Your task to perform on an android device: Add "macbook pro 13 inch" to the cart on target.com, then select checkout. Image 0: 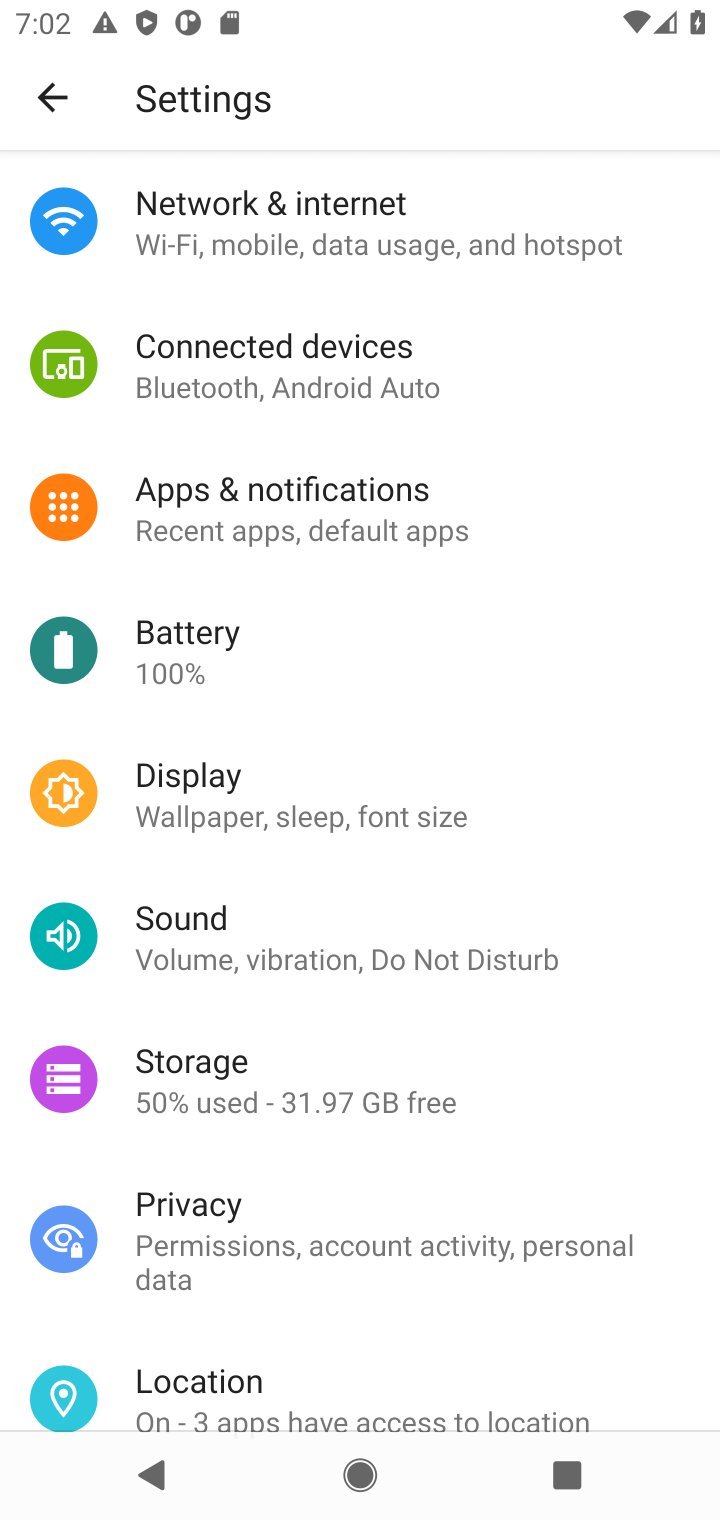
Step 0: press home button
Your task to perform on an android device: Add "macbook pro 13 inch" to the cart on target.com, then select checkout. Image 1: 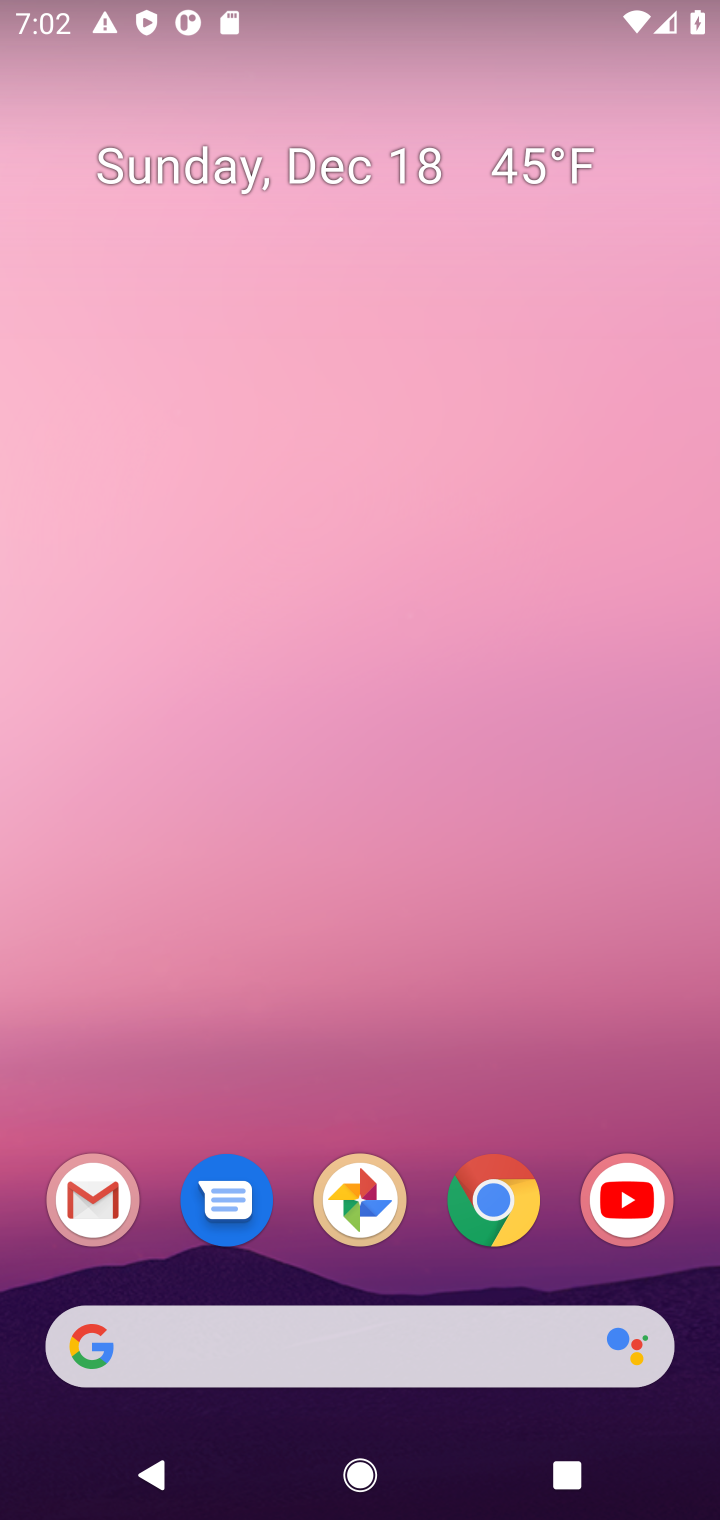
Step 1: click (496, 1223)
Your task to perform on an android device: Add "macbook pro 13 inch" to the cart on target.com, then select checkout. Image 2: 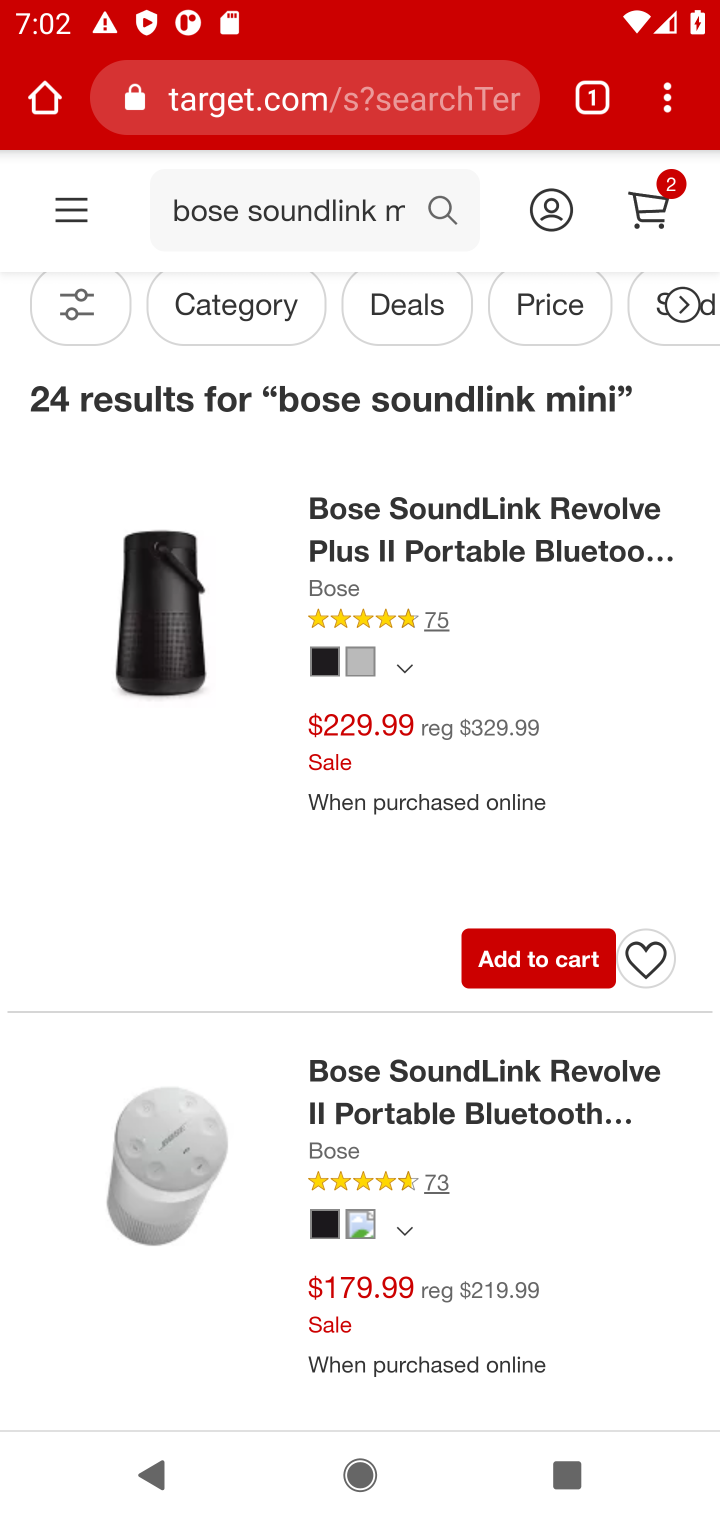
Step 2: click (437, 216)
Your task to perform on an android device: Add "macbook pro 13 inch" to the cart on target.com, then select checkout. Image 3: 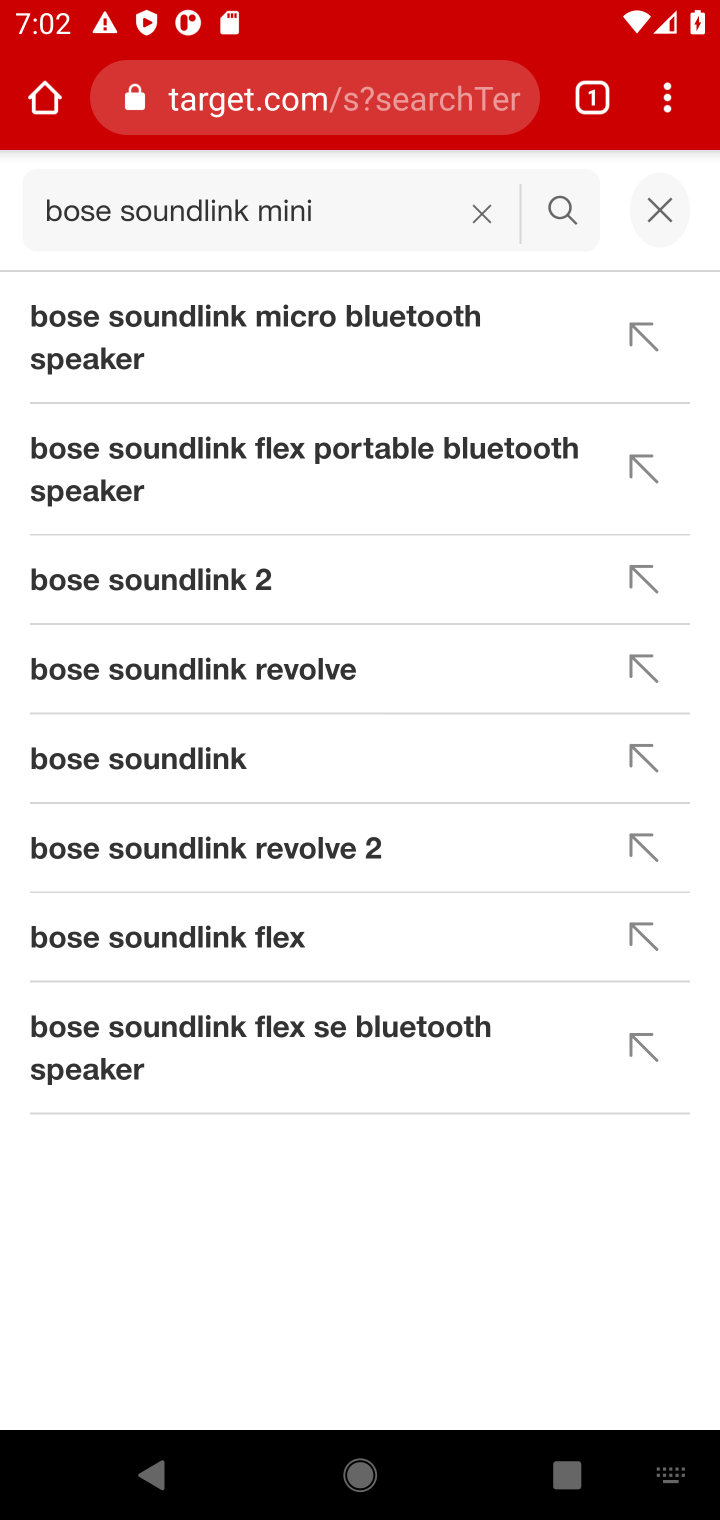
Step 3: click (491, 216)
Your task to perform on an android device: Add "macbook pro 13 inch" to the cart on target.com, then select checkout. Image 4: 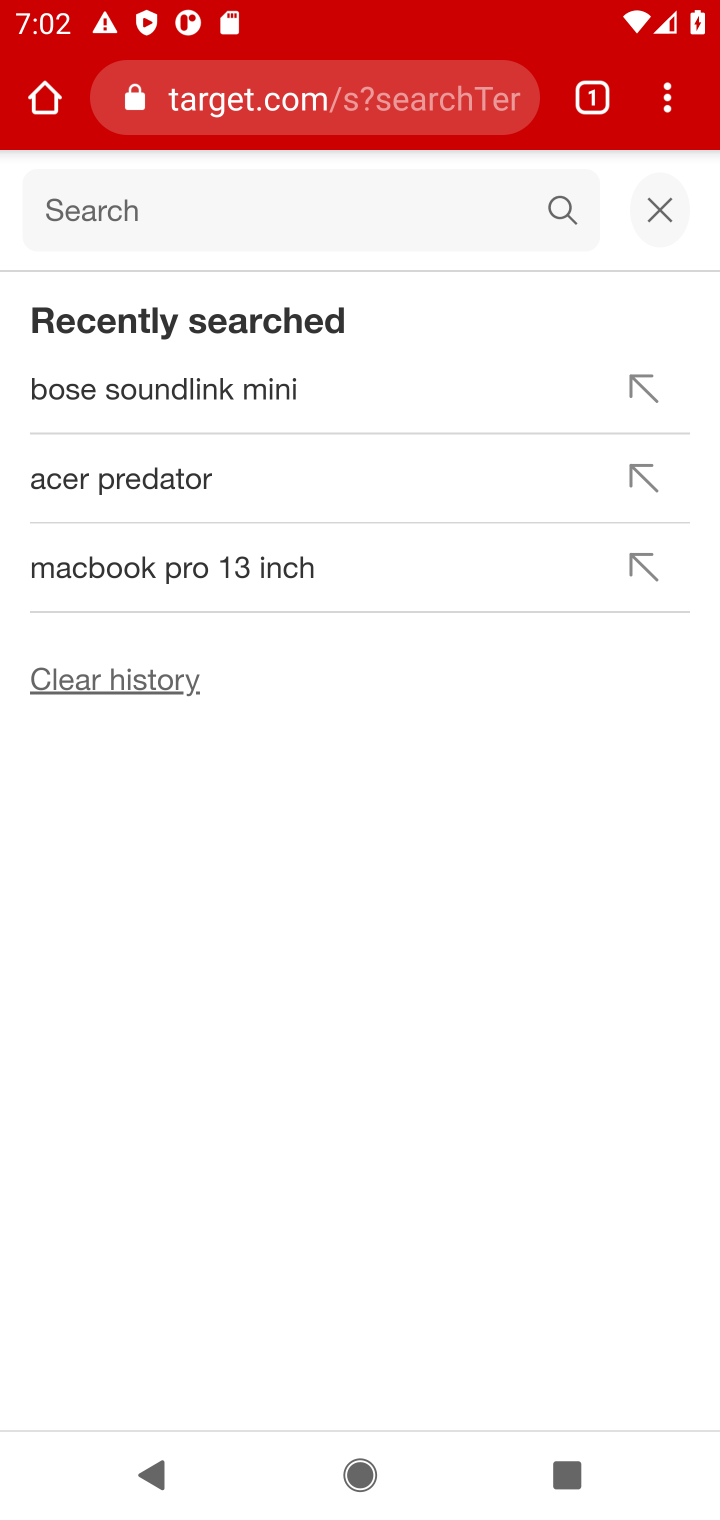
Step 4: click (175, 200)
Your task to perform on an android device: Add "macbook pro 13 inch" to the cart on target.com, then select checkout. Image 5: 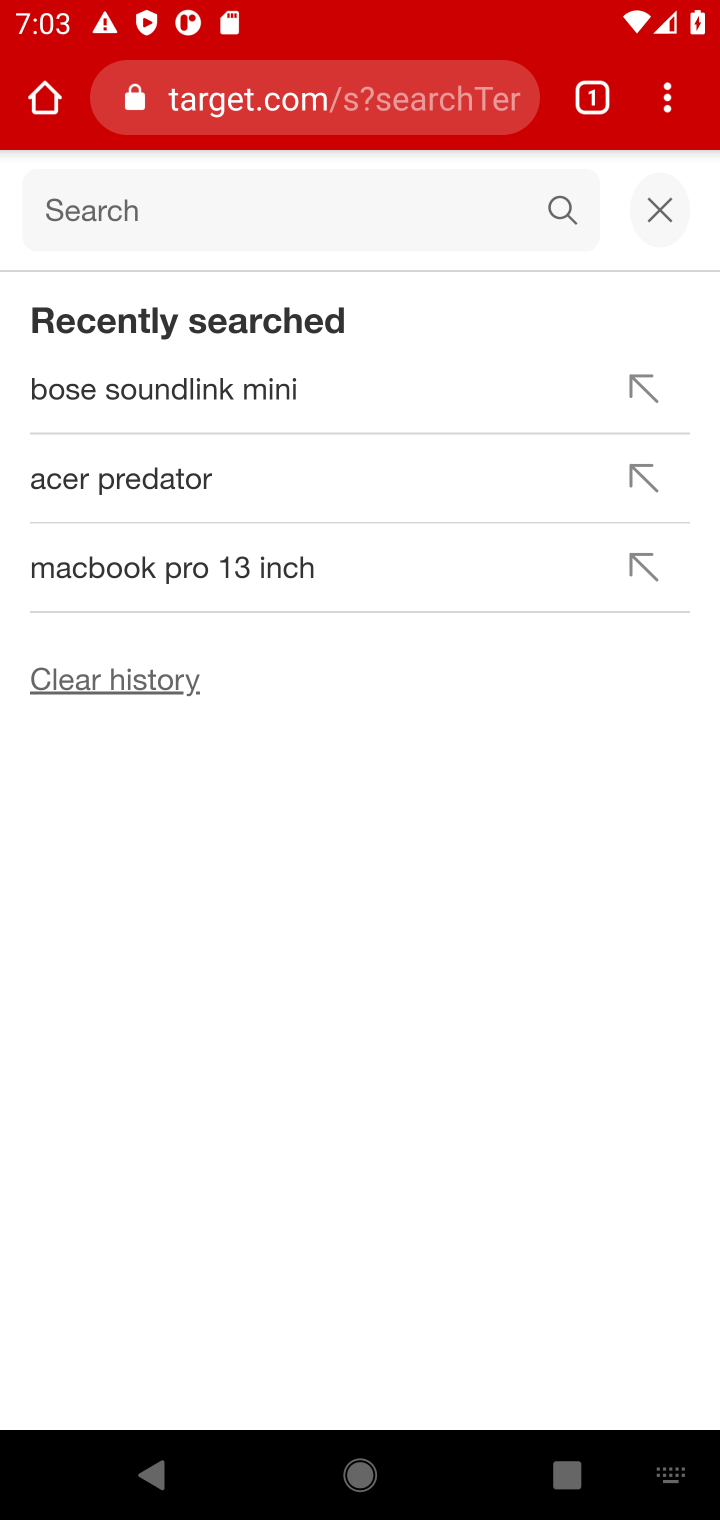
Step 5: click (174, 211)
Your task to perform on an android device: Add "macbook pro 13 inch" to the cart on target.com, then select checkout. Image 6: 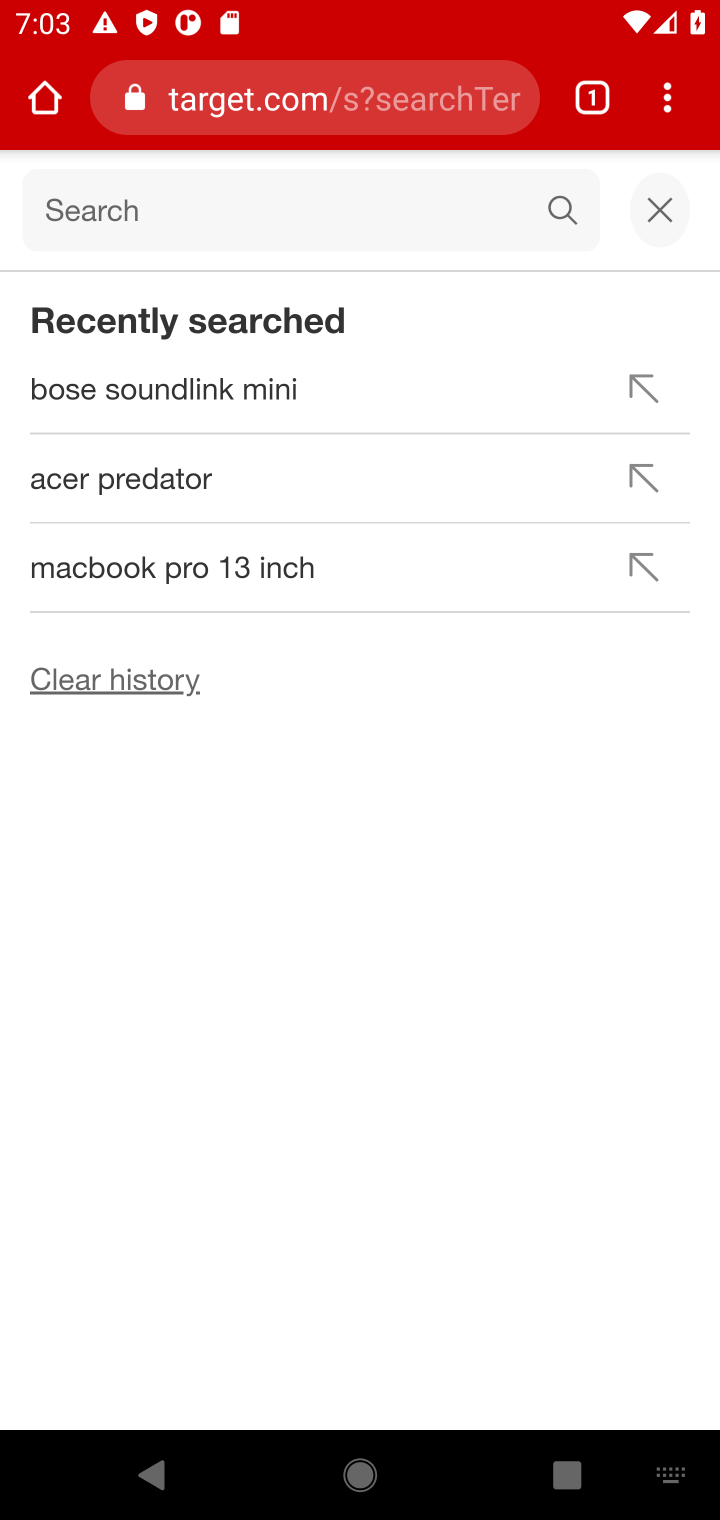
Step 6: type "macbook pro 13 inch"
Your task to perform on an android device: Add "macbook pro 13 inch" to the cart on target.com, then select checkout. Image 7: 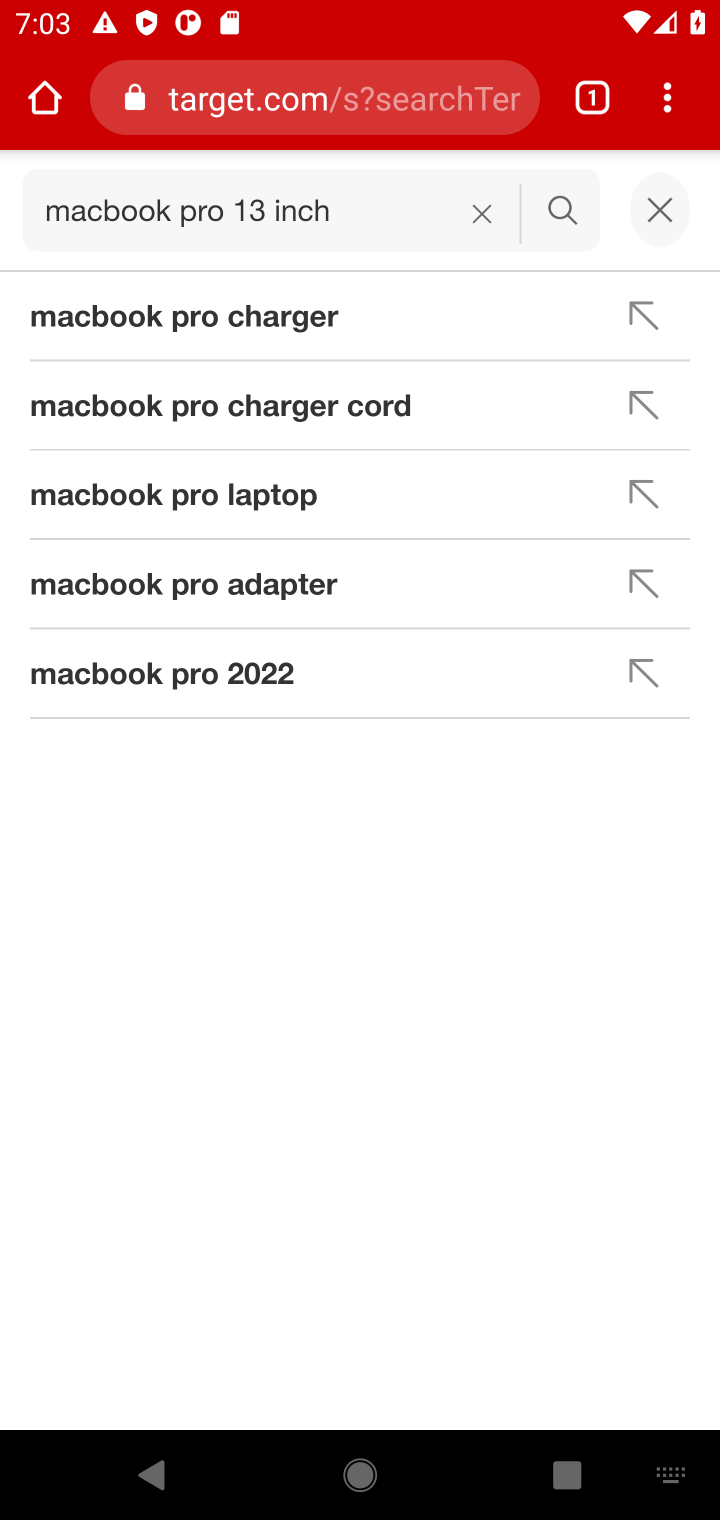
Step 7: click (548, 213)
Your task to perform on an android device: Add "macbook pro 13 inch" to the cart on target.com, then select checkout. Image 8: 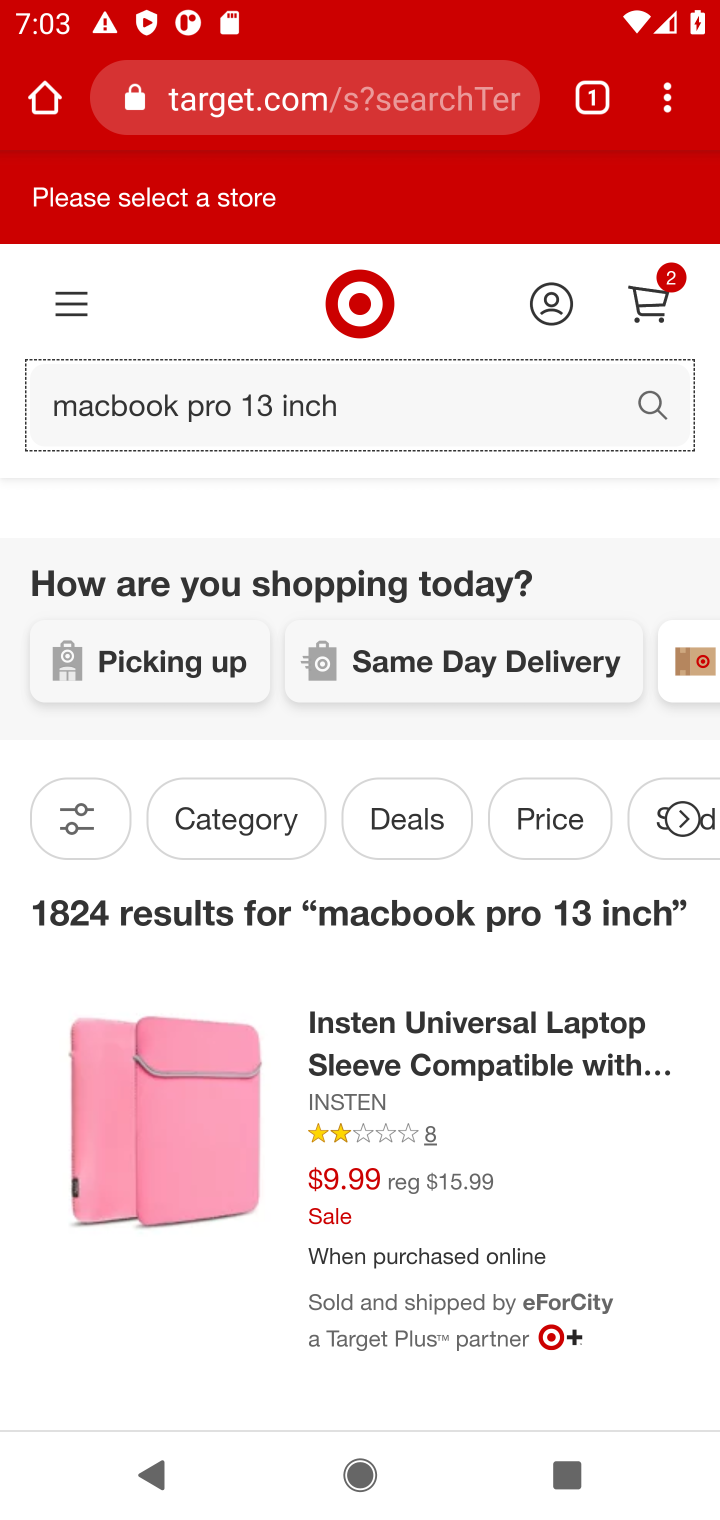
Step 8: drag from (290, 1311) to (330, 676)
Your task to perform on an android device: Add "macbook pro 13 inch" to the cart on target.com, then select checkout. Image 9: 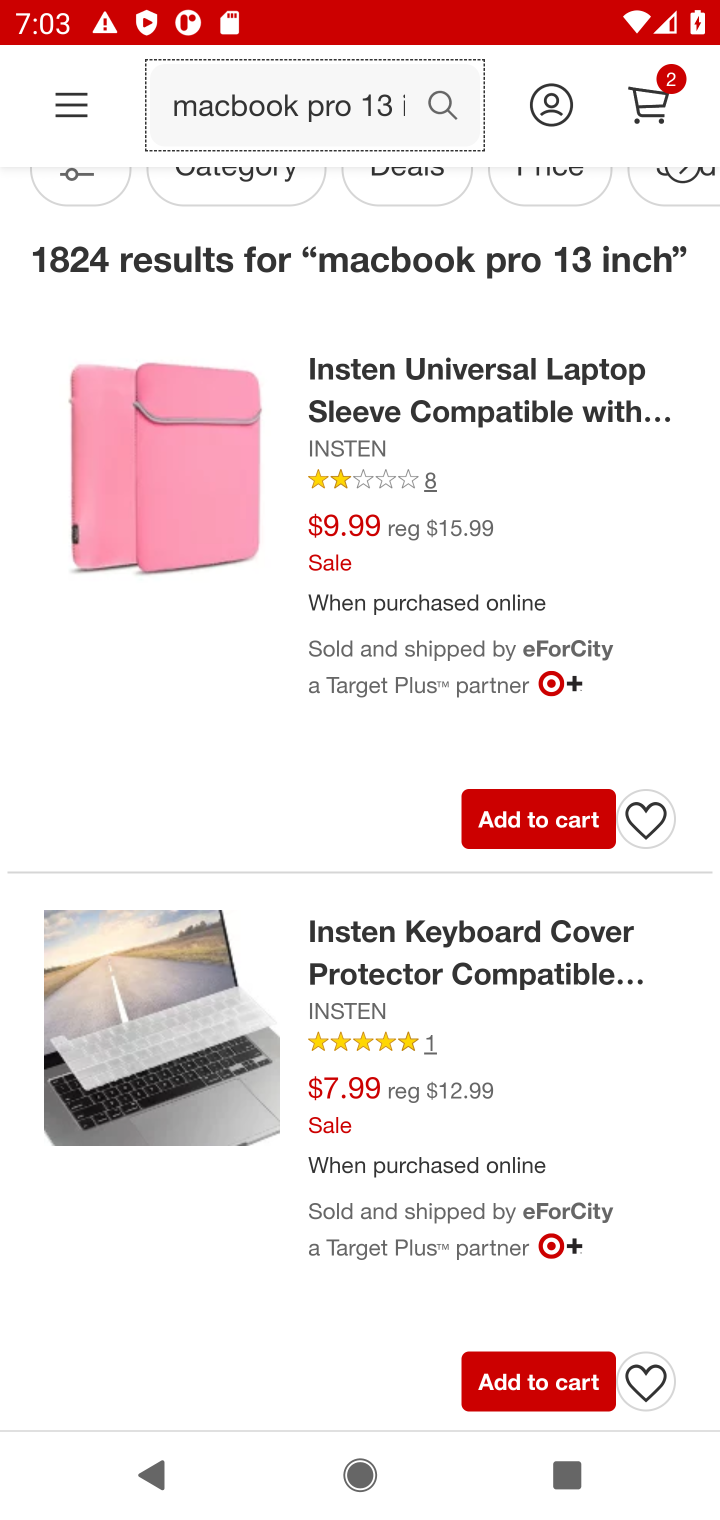
Step 9: click (545, 835)
Your task to perform on an android device: Add "macbook pro 13 inch" to the cart on target.com, then select checkout. Image 10: 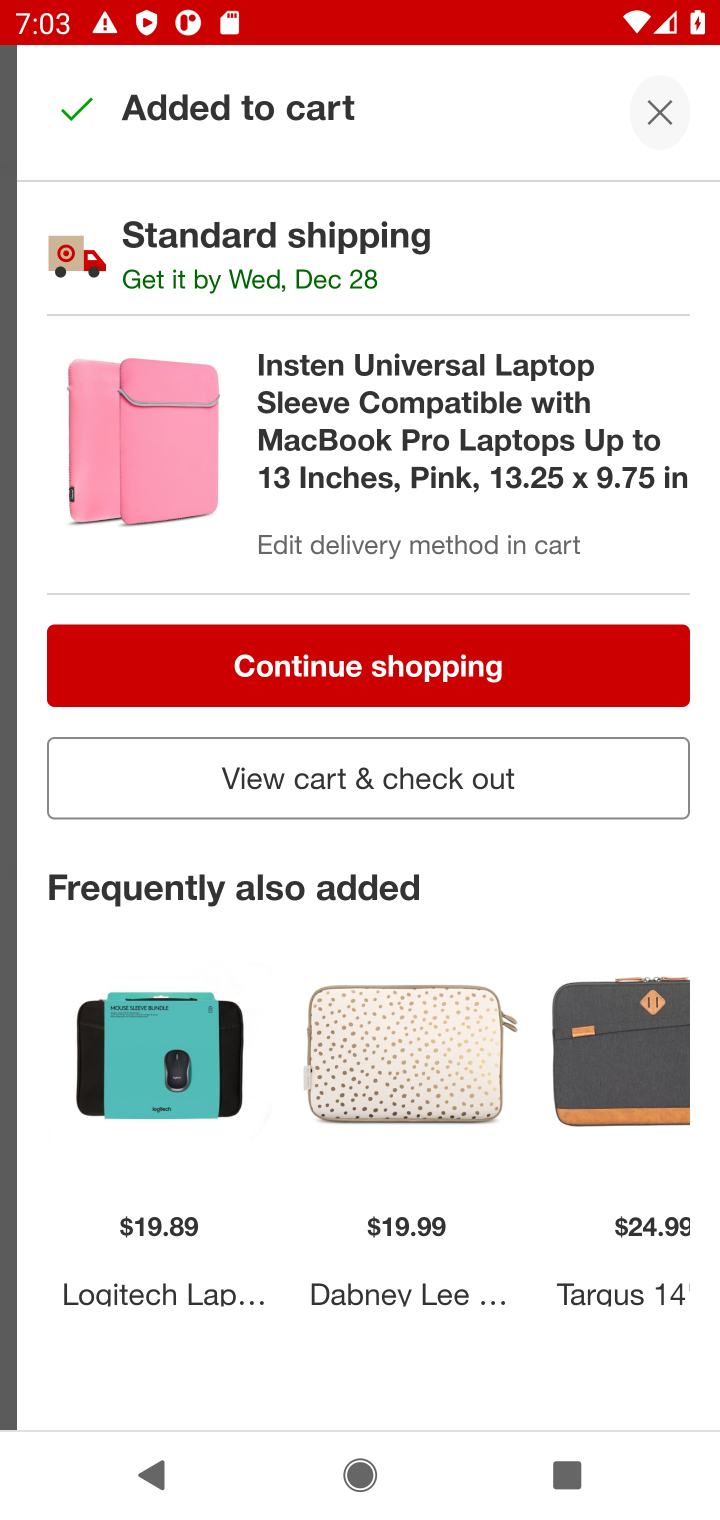
Step 10: click (500, 779)
Your task to perform on an android device: Add "macbook pro 13 inch" to the cart on target.com, then select checkout. Image 11: 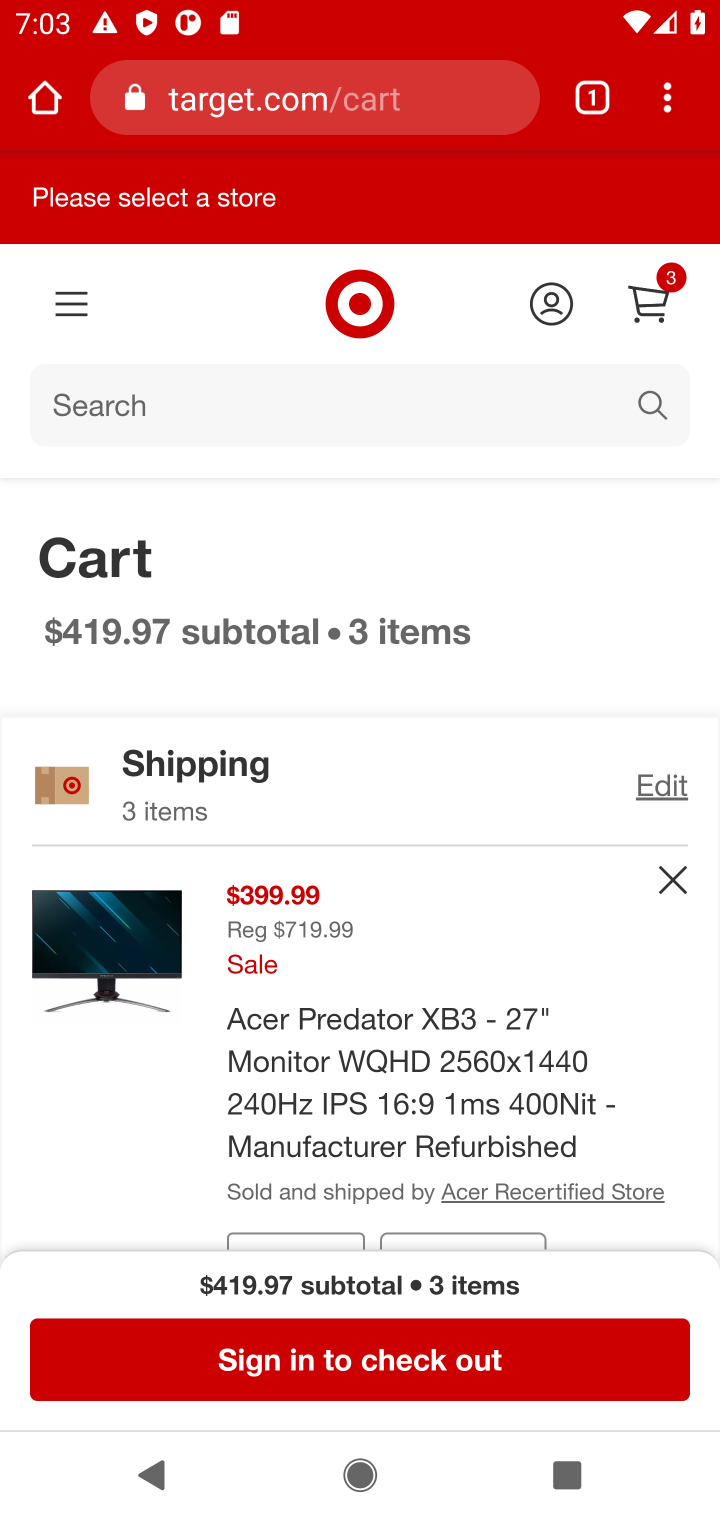
Step 11: click (316, 1329)
Your task to perform on an android device: Add "macbook pro 13 inch" to the cart on target.com, then select checkout. Image 12: 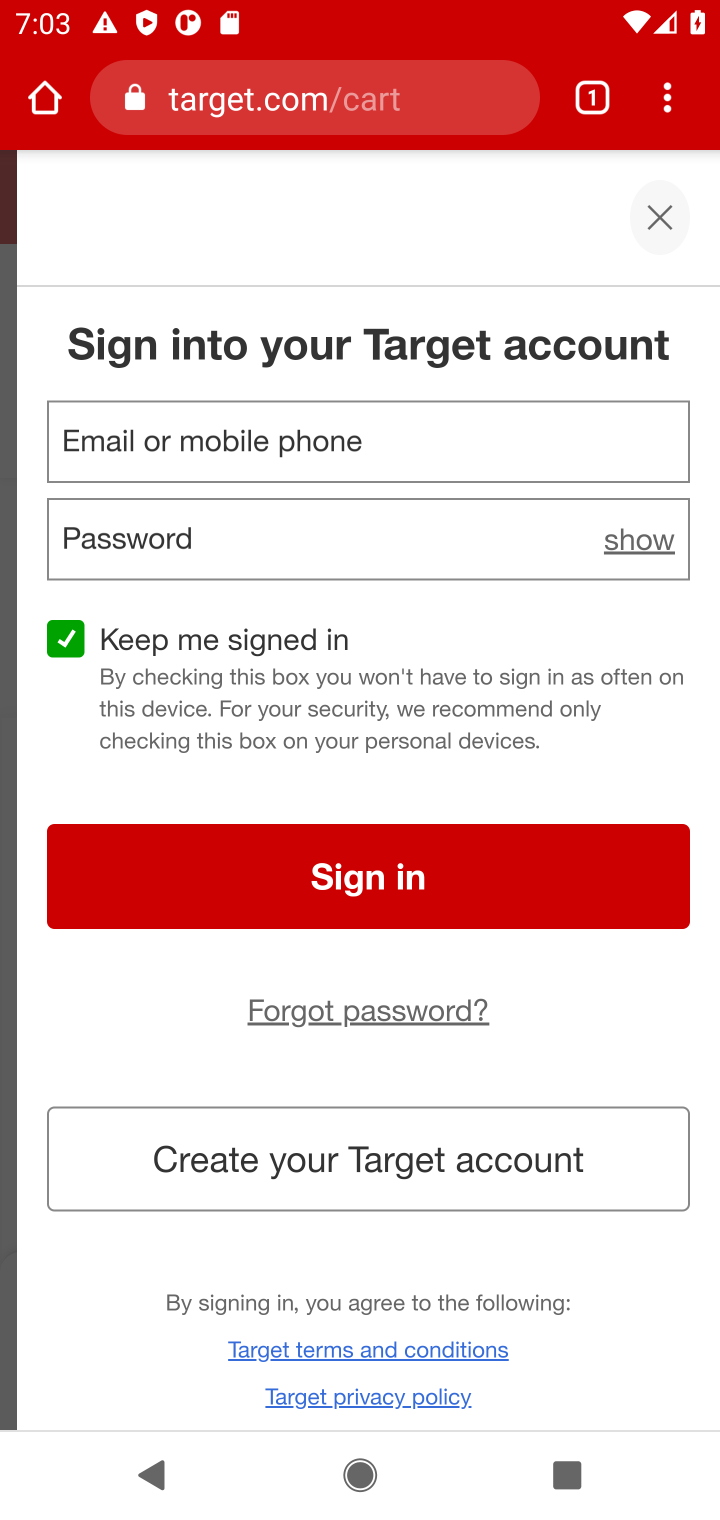
Step 12: task complete